Your task to perform on an android device: toggle location history Image 0: 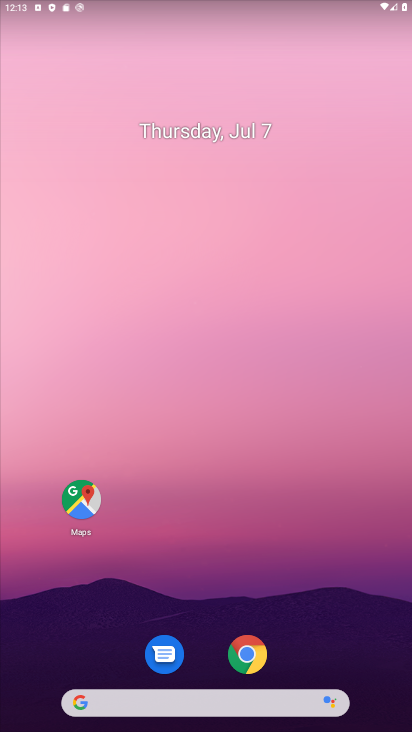
Step 0: click (77, 499)
Your task to perform on an android device: toggle location history Image 1: 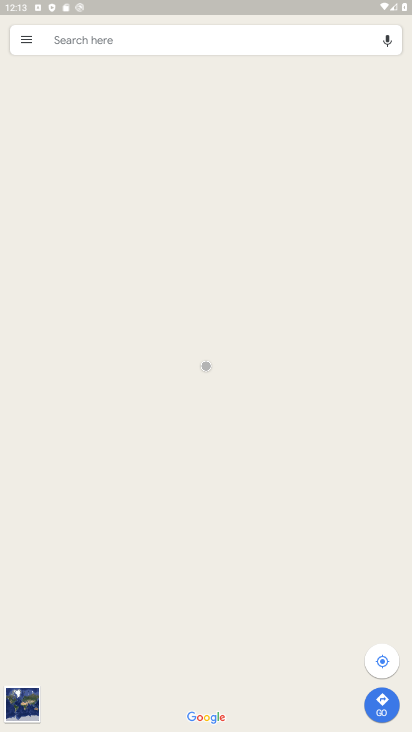
Step 1: click (22, 36)
Your task to perform on an android device: toggle location history Image 2: 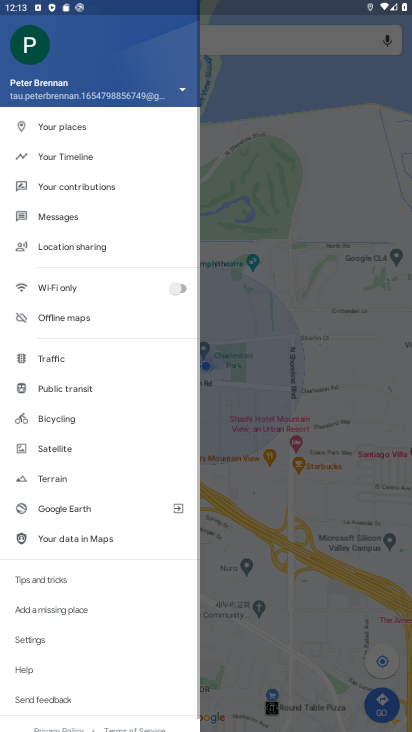
Step 2: click (78, 156)
Your task to perform on an android device: toggle location history Image 3: 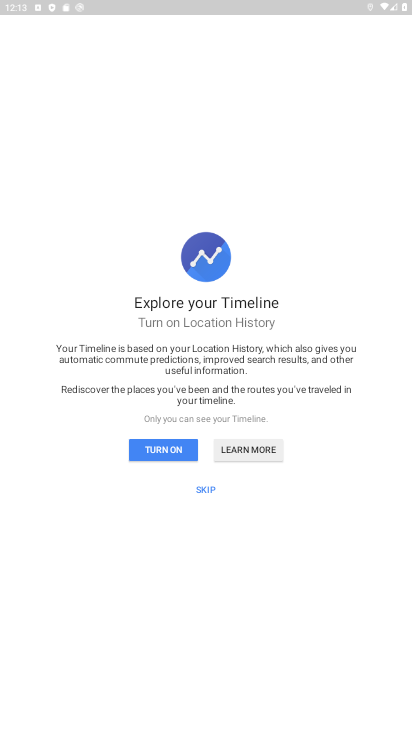
Step 3: click (173, 452)
Your task to perform on an android device: toggle location history Image 4: 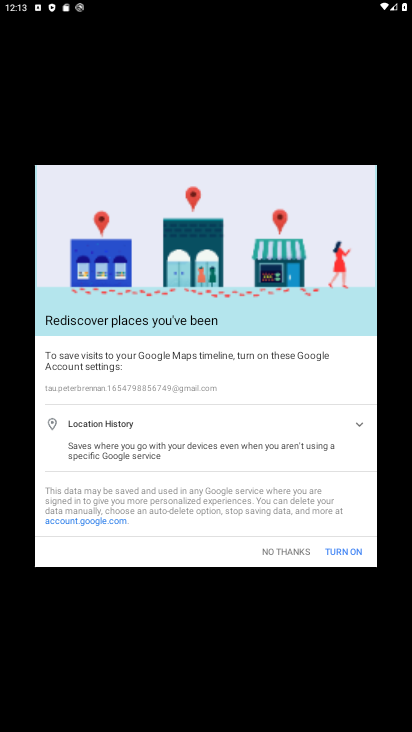
Step 4: click (335, 554)
Your task to perform on an android device: toggle location history Image 5: 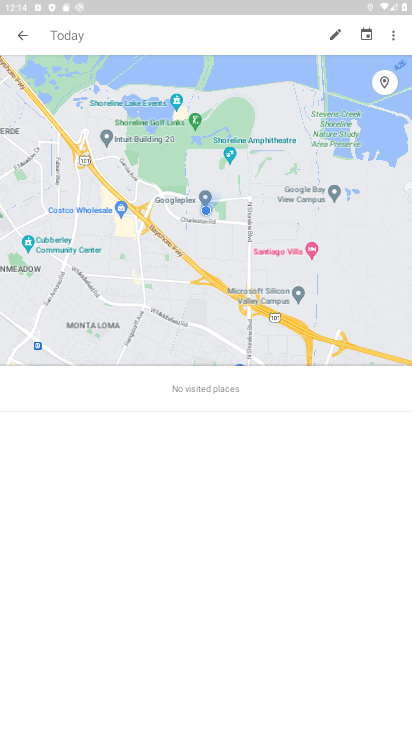
Step 5: click (394, 40)
Your task to perform on an android device: toggle location history Image 6: 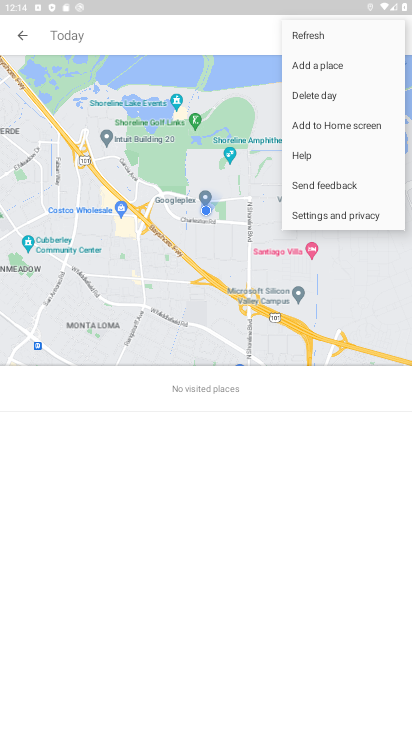
Step 6: click (317, 220)
Your task to perform on an android device: toggle location history Image 7: 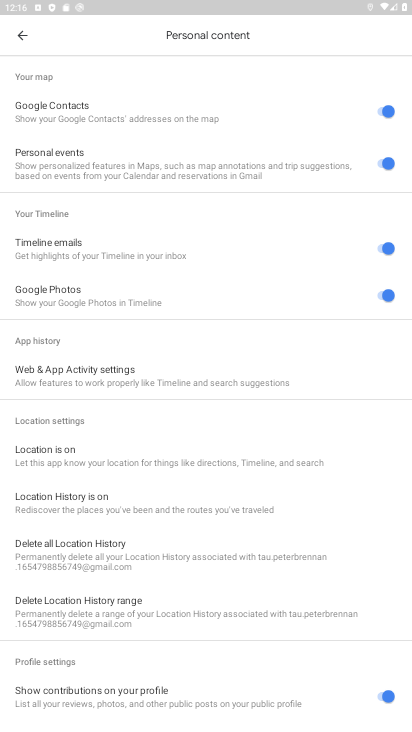
Step 7: click (138, 509)
Your task to perform on an android device: toggle location history Image 8: 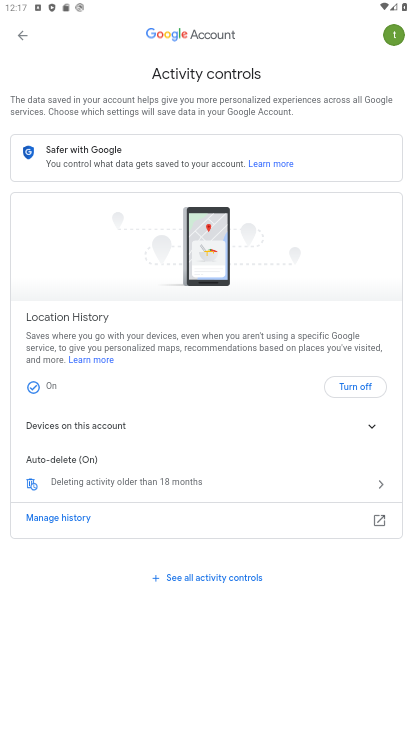
Step 8: click (350, 380)
Your task to perform on an android device: toggle location history Image 9: 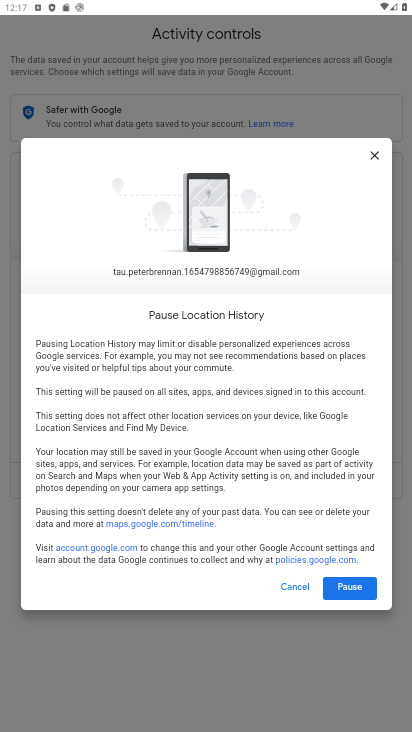
Step 9: click (350, 589)
Your task to perform on an android device: toggle location history Image 10: 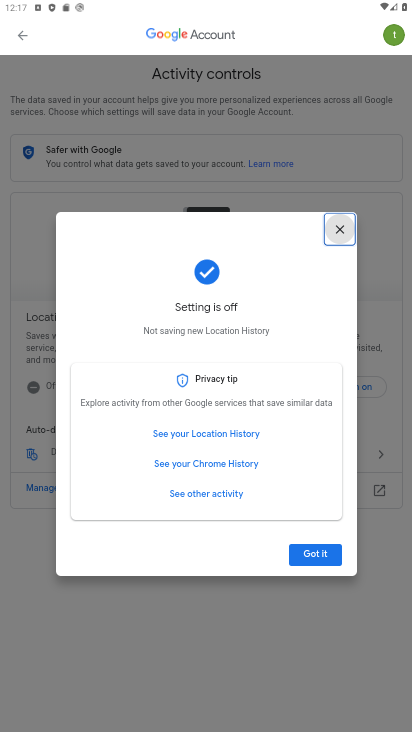
Step 10: task complete